Your task to perform on an android device: Open Android settings Image 0: 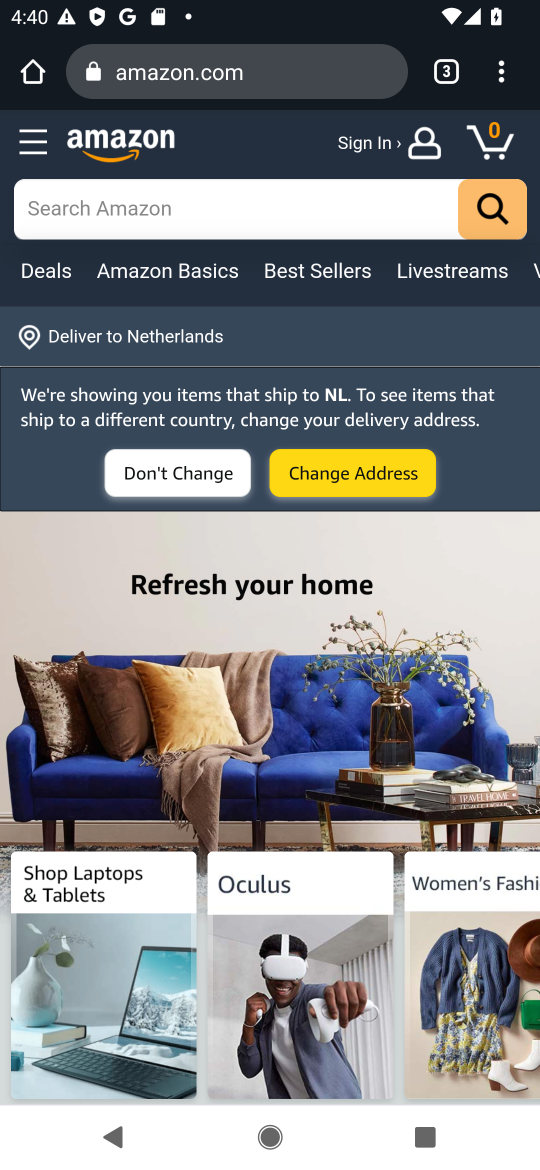
Step 0: press home button
Your task to perform on an android device: Open Android settings Image 1: 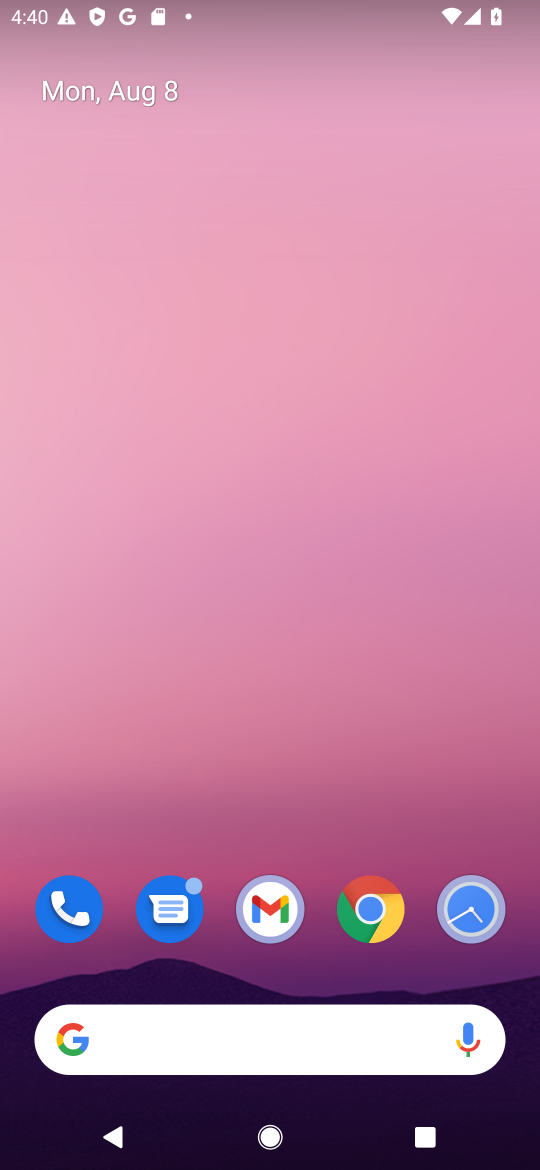
Step 1: drag from (278, 1016) to (435, 156)
Your task to perform on an android device: Open Android settings Image 2: 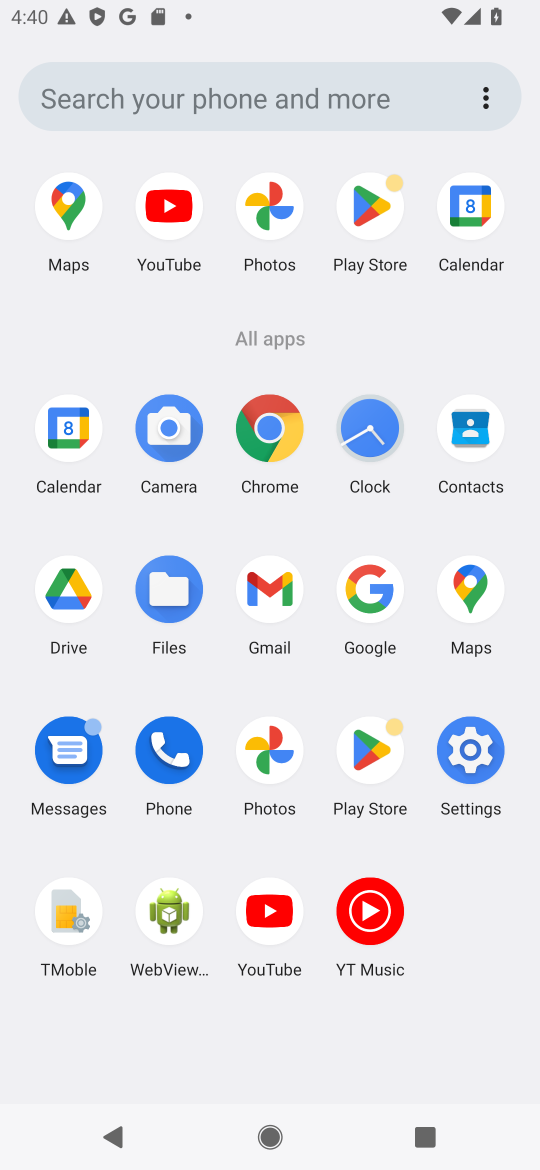
Step 2: click (468, 745)
Your task to perform on an android device: Open Android settings Image 3: 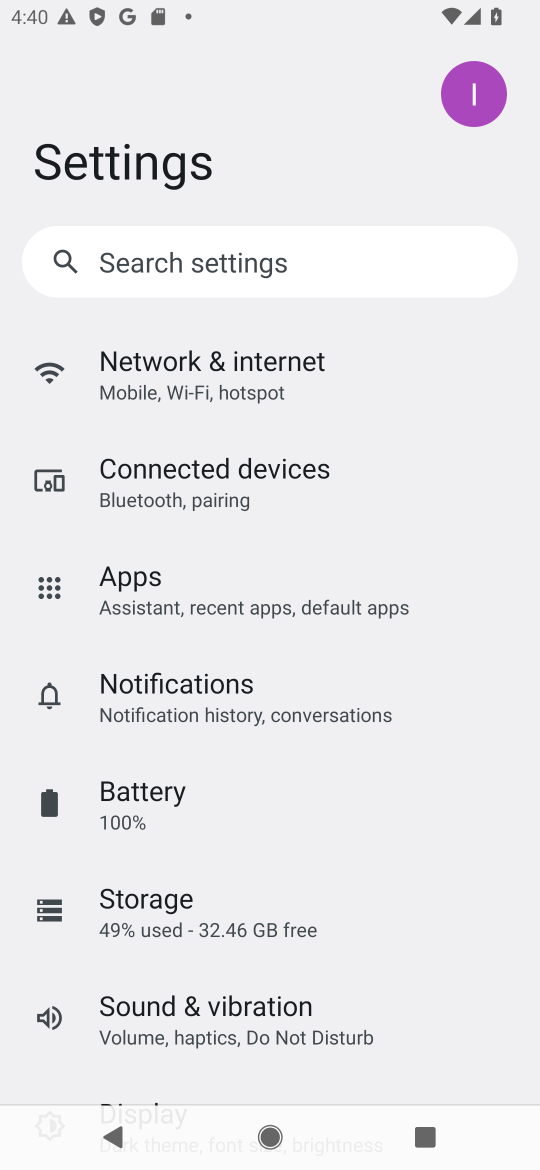
Step 3: task complete